Your task to perform on an android device: toggle pop-ups in chrome Image 0: 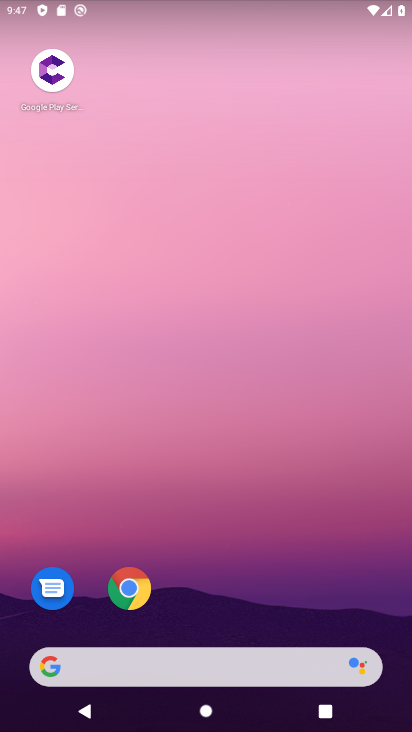
Step 0: drag from (206, 612) to (267, 2)
Your task to perform on an android device: toggle pop-ups in chrome Image 1: 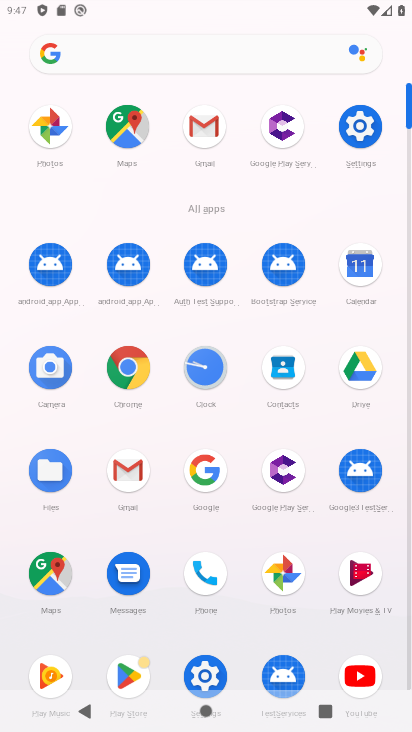
Step 1: click (129, 379)
Your task to perform on an android device: toggle pop-ups in chrome Image 2: 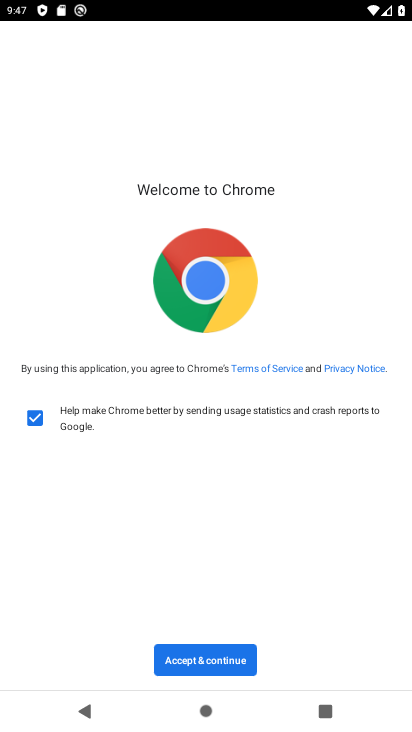
Step 2: click (225, 659)
Your task to perform on an android device: toggle pop-ups in chrome Image 3: 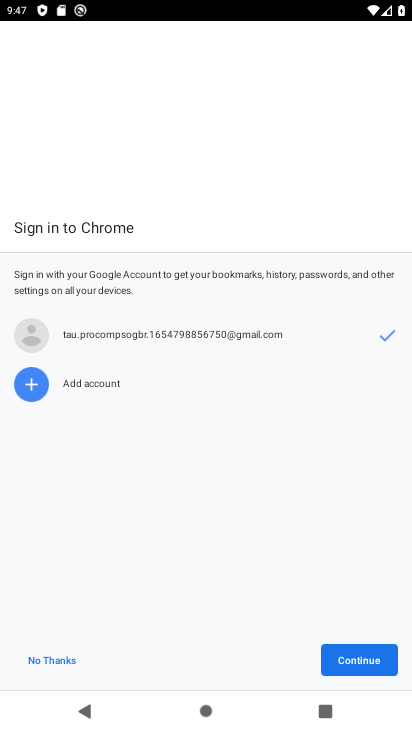
Step 3: click (369, 663)
Your task to perform on an android device: toggle pop-ups in chrome Image 4: 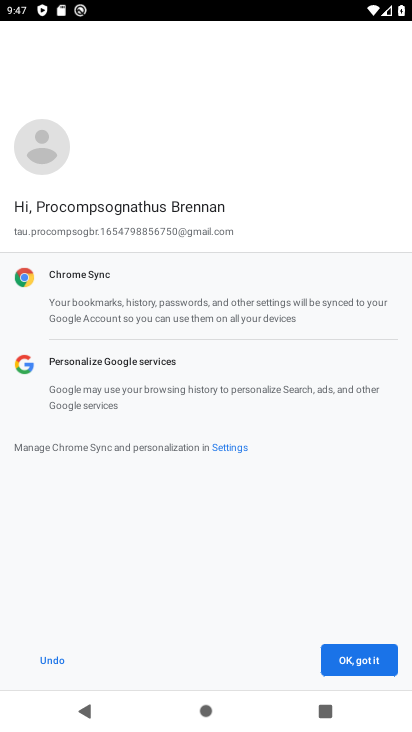
Step 4: click (369, 663)
Your task to perform on an android device: toggle pop-ups in chrome Image 5: 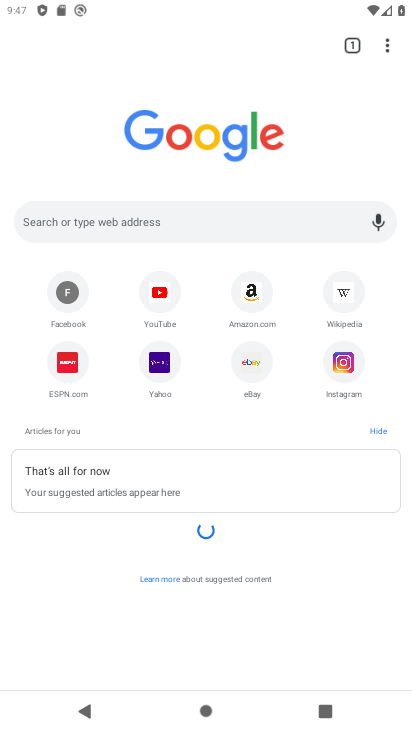
Step 5: click (386, 38)
Your task to perform on an android device: toggle pop-ups in chrome Image 6: 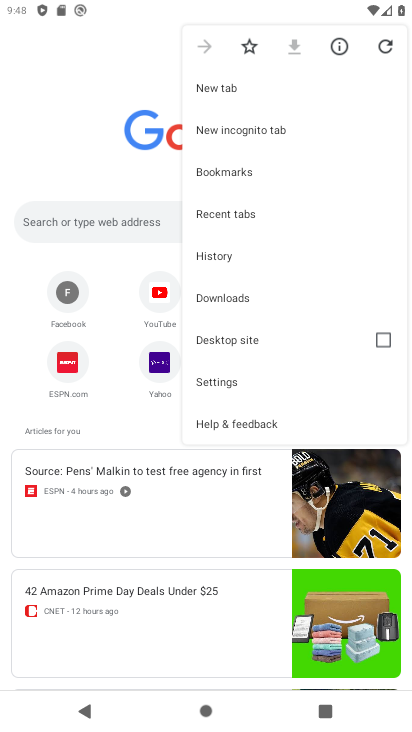
Step 6: click (234, 384)
Your task to perform on an android device: toggle pop-ups in chrome Image 7: 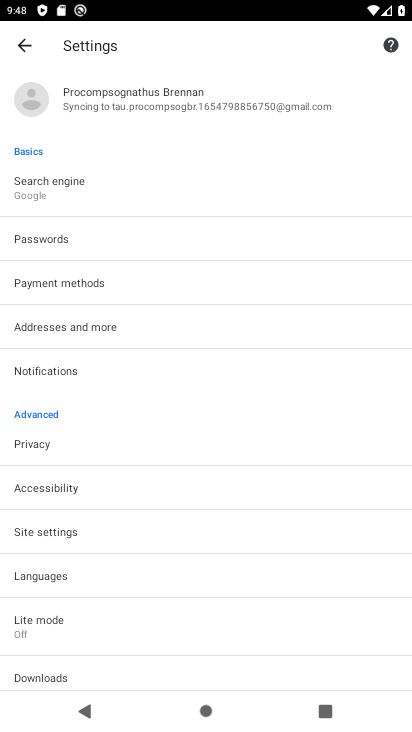
Step 7: click (68, 531)
Your task to perform on an android device: toggle pop-ups in chrome Image 8: 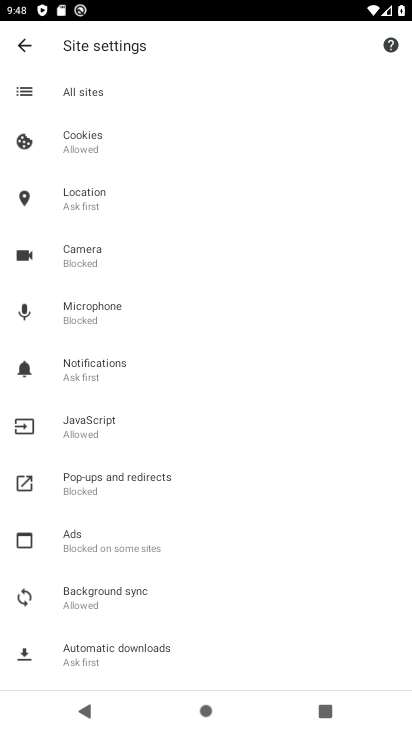
Step 8: click (137, 484)
Your task to perform on an android device: toggle pop-ups in chrome Image 9: 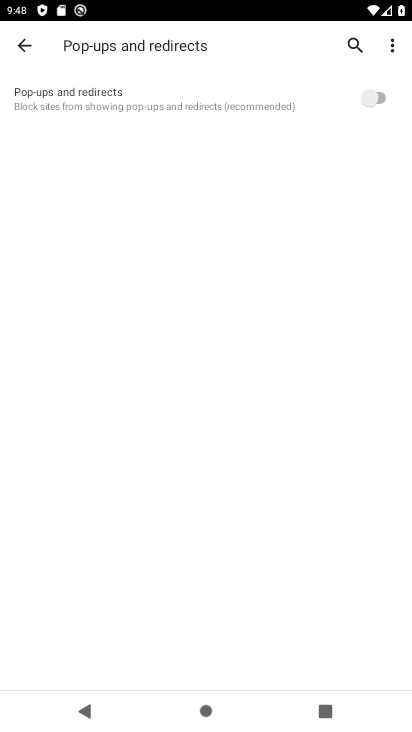
Step 9: click (380, 99)
Your task to perform on an android device: toggle pop-ups in chrome Image 10: 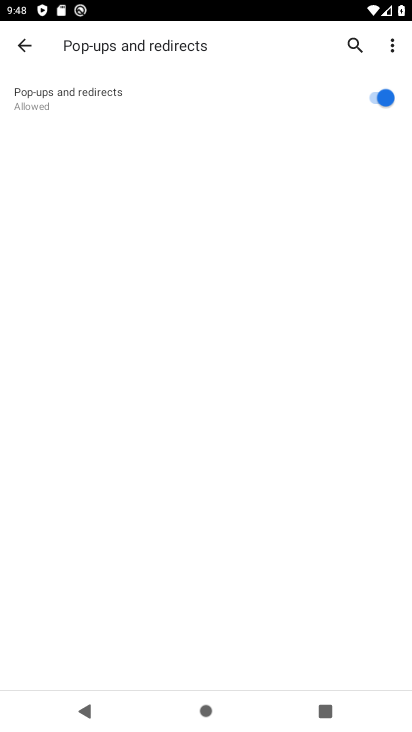
Step 10: task complete